Your task to perform on an android device: Do I have any events tomorrow? Image 0: 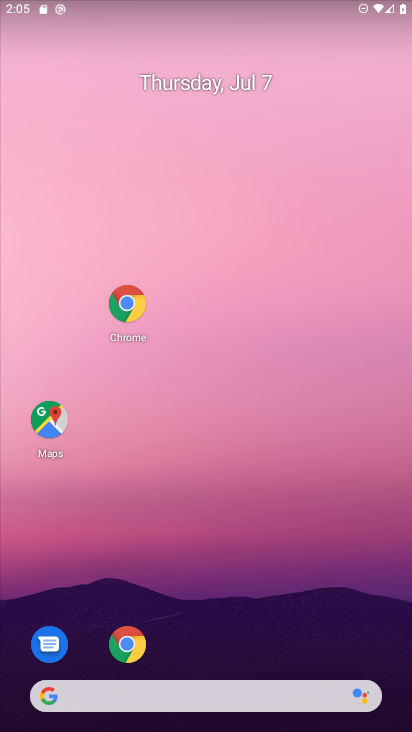
Step 0: drag from (250, 628) to (228, 181)
Your task to perform on an android device: Do I have any events tomorrow? Image 1: 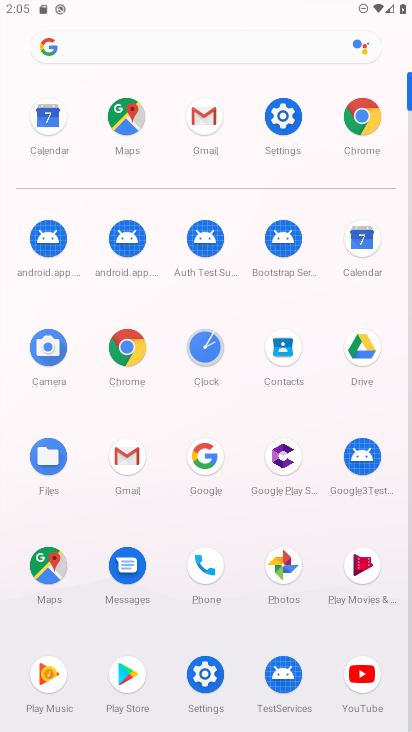
Step 1: click (364, 245)
Your task to perform on an android device: Do I have any events tomorrow? Image 2: 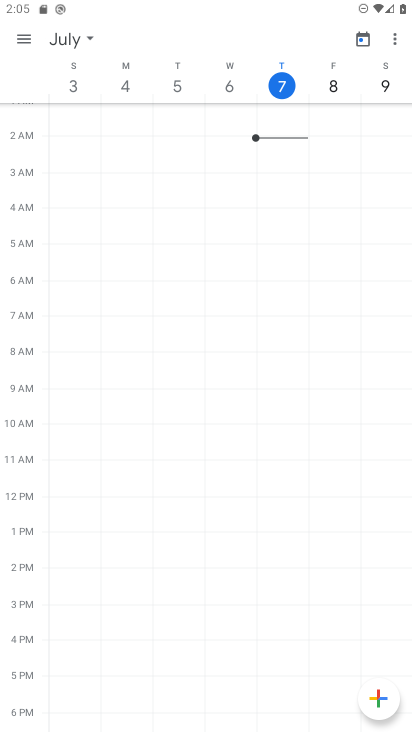
Step 2: click (336, 92)
Your task to perform on an android device: Do I have any events tomorrow? Image 3: 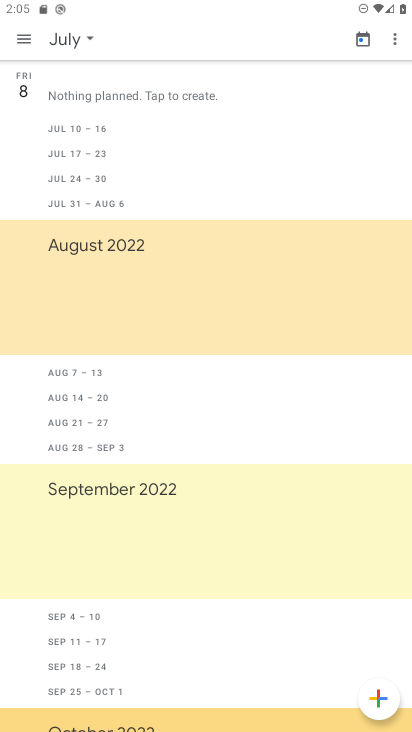
Step 3: task complete